Your task to perform on an android device: Search for Italian restaurants on Maps Image 0: 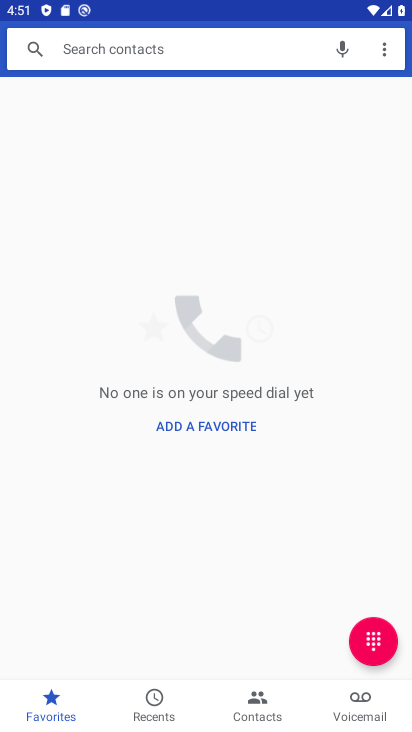
Step 0: press home button
Your task to perform on an android device: Search for Italian restaurants on Maps Image 1: 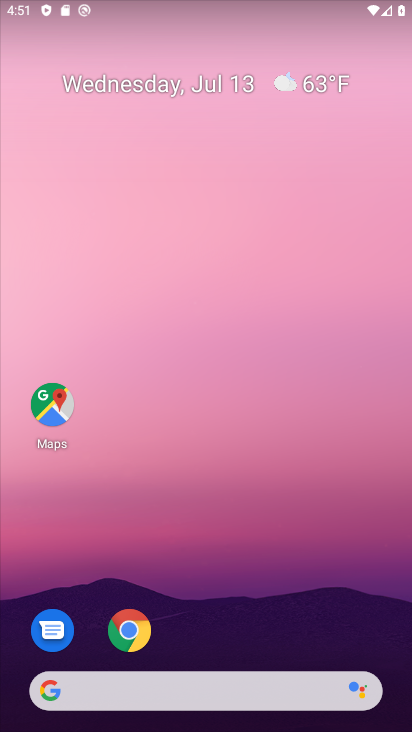
Step 1: click (241, 41)
Your task to perform on an android device: Search for Italian restaurants on Maps Image 2: 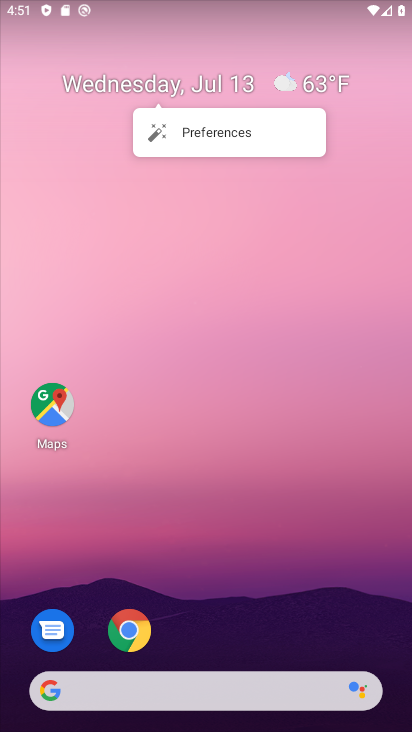
Step 2: drag from (244, 642) to (288, 91)
Your task to perform on an android device: Search for Italian restaurants on Maps Image 3: 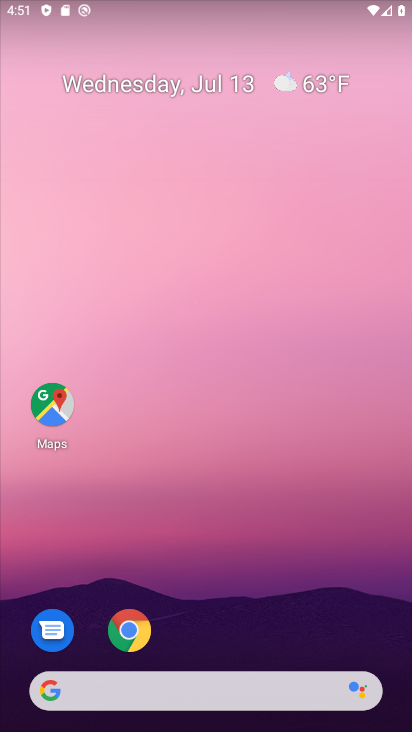
Step 3: drag from (260, 650) to (284, 26)
Your task to perform on an android device: Search for Italian restaurants on Maps Image 4: 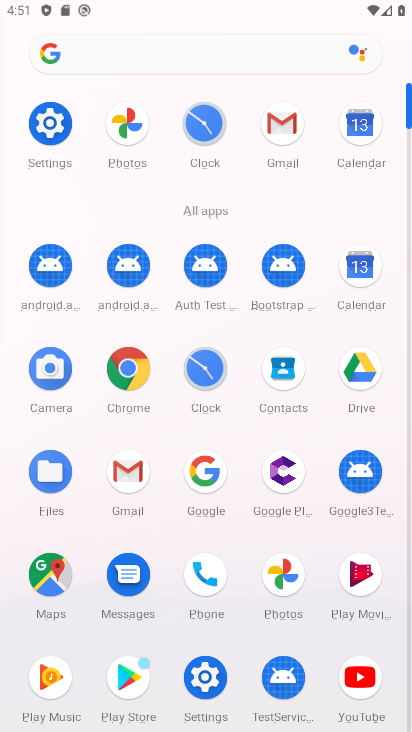
Step 4: click (41, 584)
Your task to perform on an android device: Search for Italian restaurants on Maps Image 5: 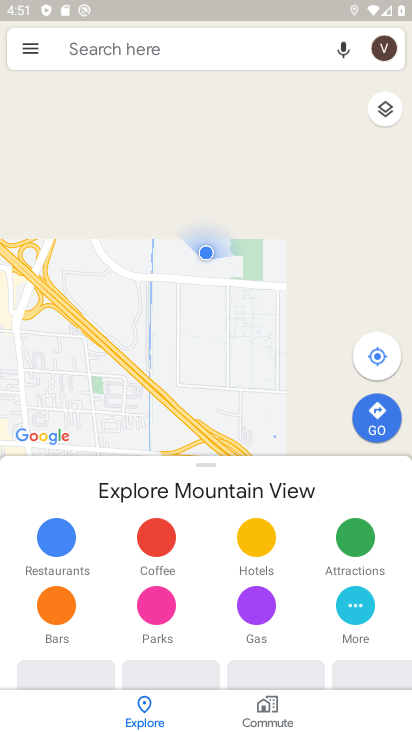
Step 5: click (133, 46)
Your task to perform on an android device: Search for Italian restaurants on Maps Image 6: 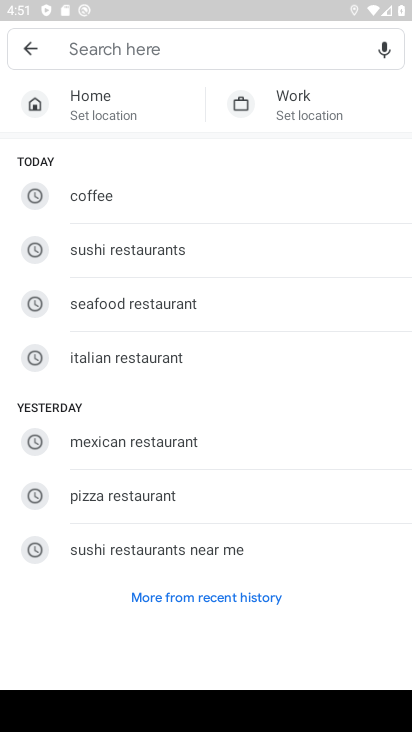
Step 6: click (128, 360)
Your task to perform on an android device: Search for Italian restaurants on Maps Image 7: 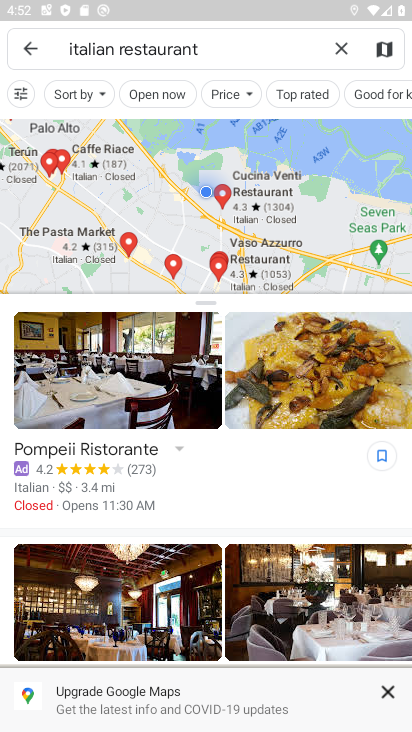
Step 7: task complete